Your task to perform on an android device: turn off smart reply in the gmail app Image 0: 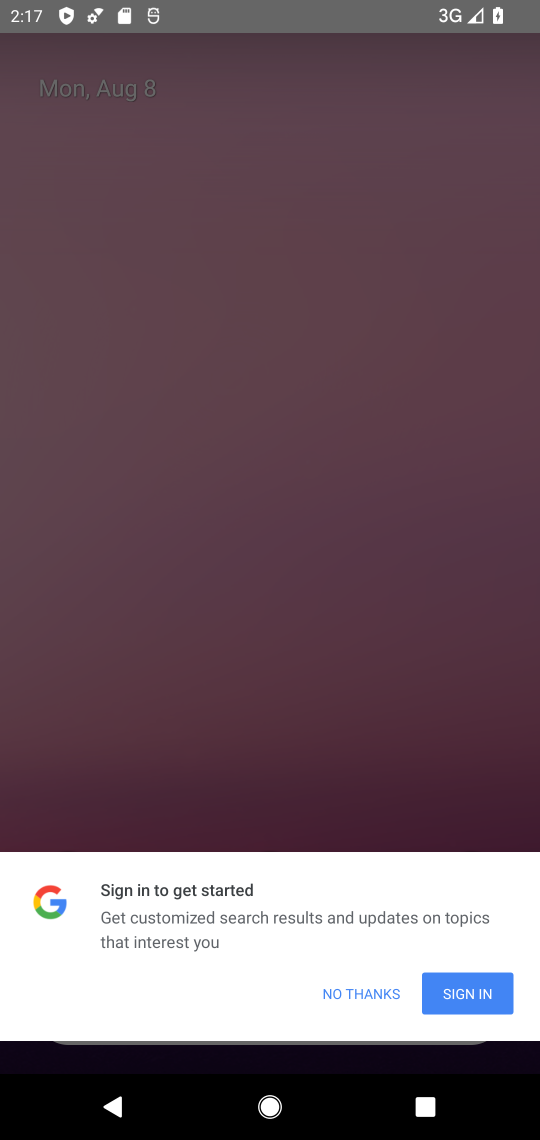
Step 0: press home button
Your task to perform on an android device: turn off smart reply in the gmail app Image 1: 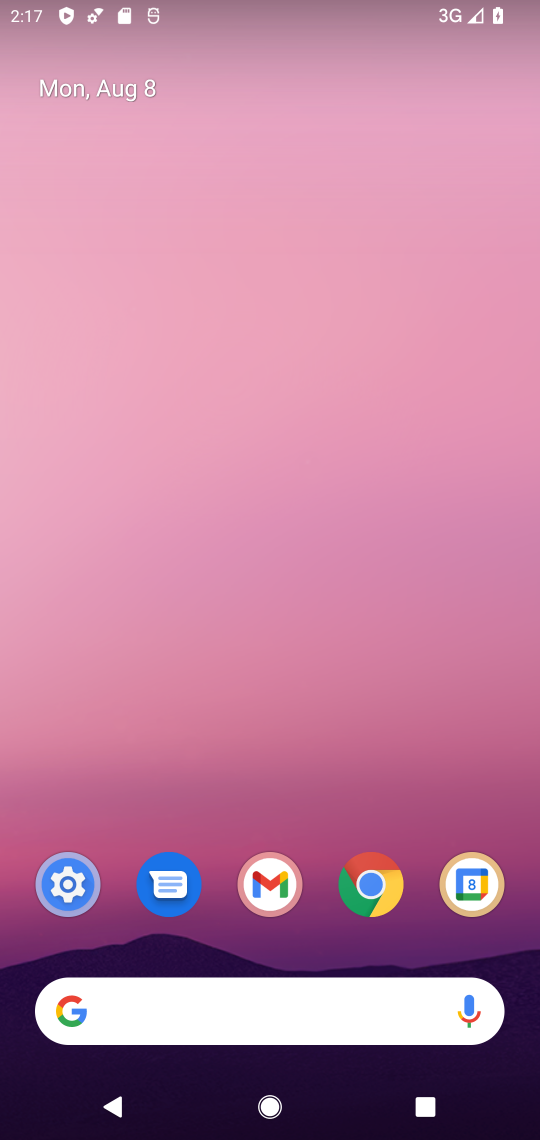
Step 1: click (266, 884)
Your task to perform on an android device: turn off smart reply in the gmail app Image 2: 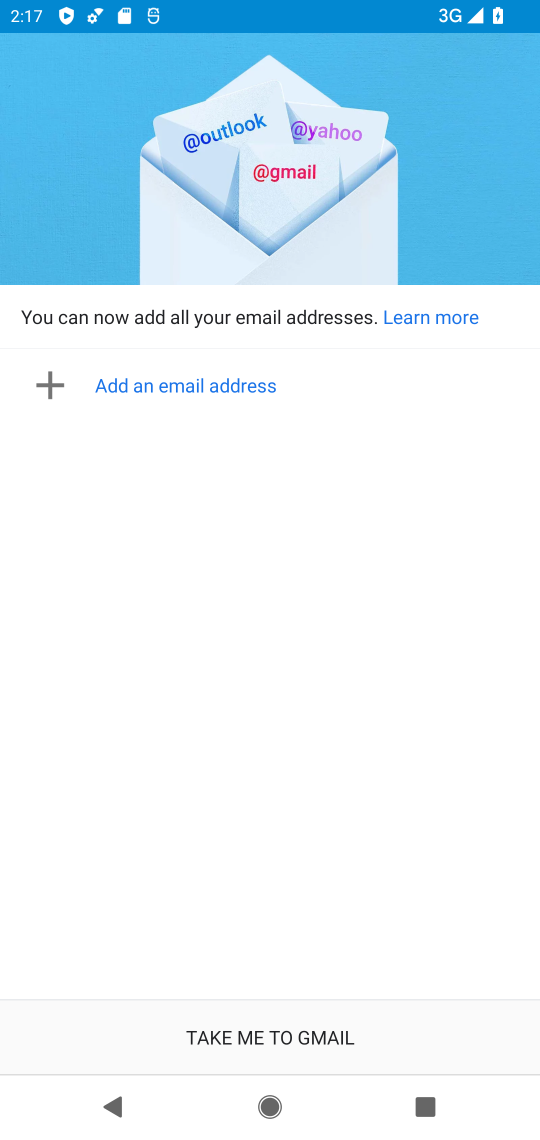
Step 2: click (286, 1032)
Your task to perform on an android device: turn off smart reply in the gmail app Image 3: 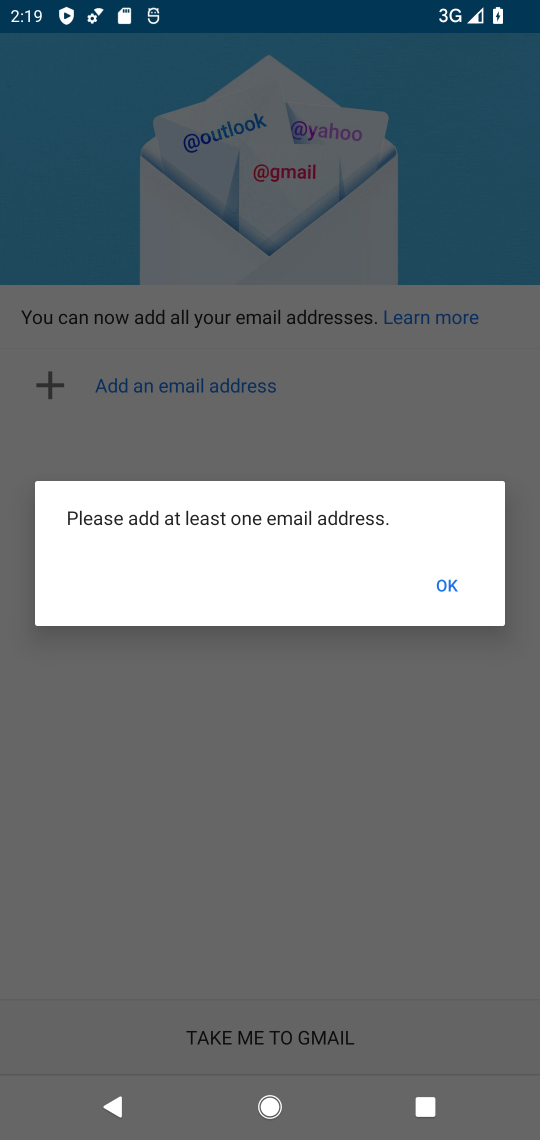
Step 3: press home button
Your task to perform on an android device: turn off smart reply in the gmail app Image 4: 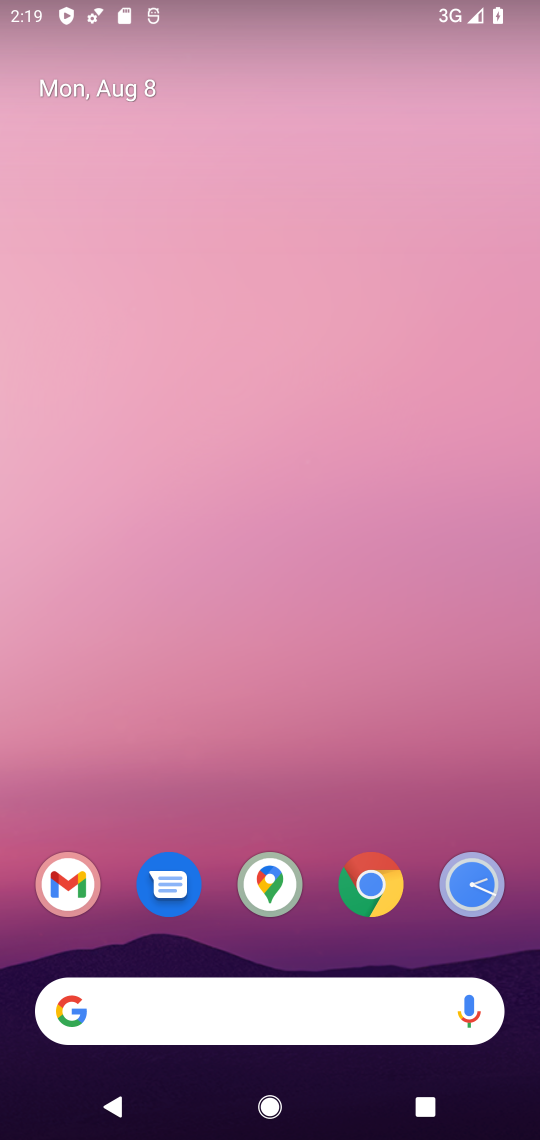
Step 4: click (78, 886)
Your task to perform on an android device: turn off smart reply in the gmail app Image 5: 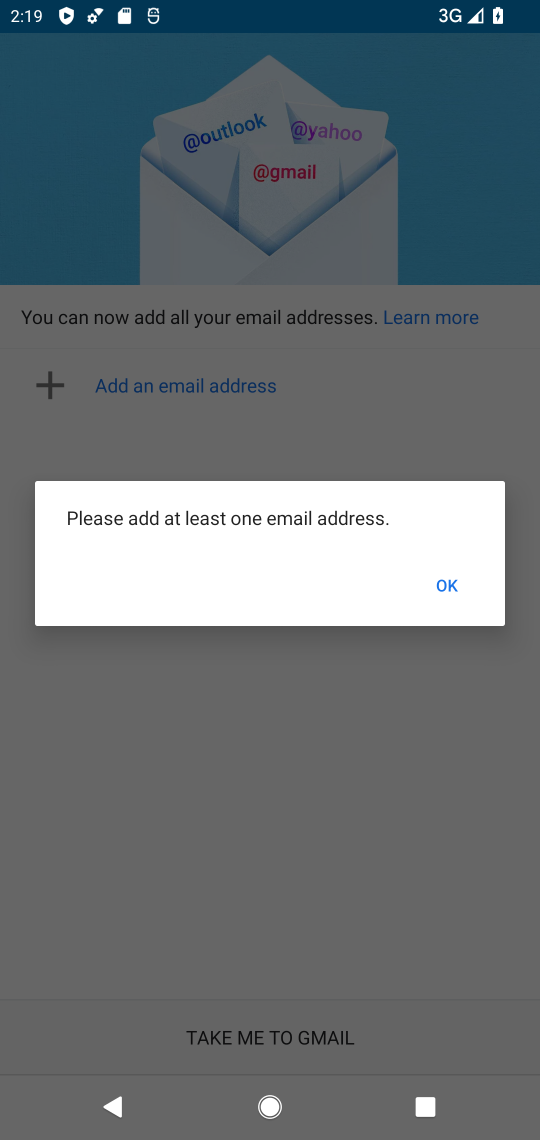
Step 5: click (437, 565)
Your task to perform on an android device: turn off smart reply in the gmail app Image 6: 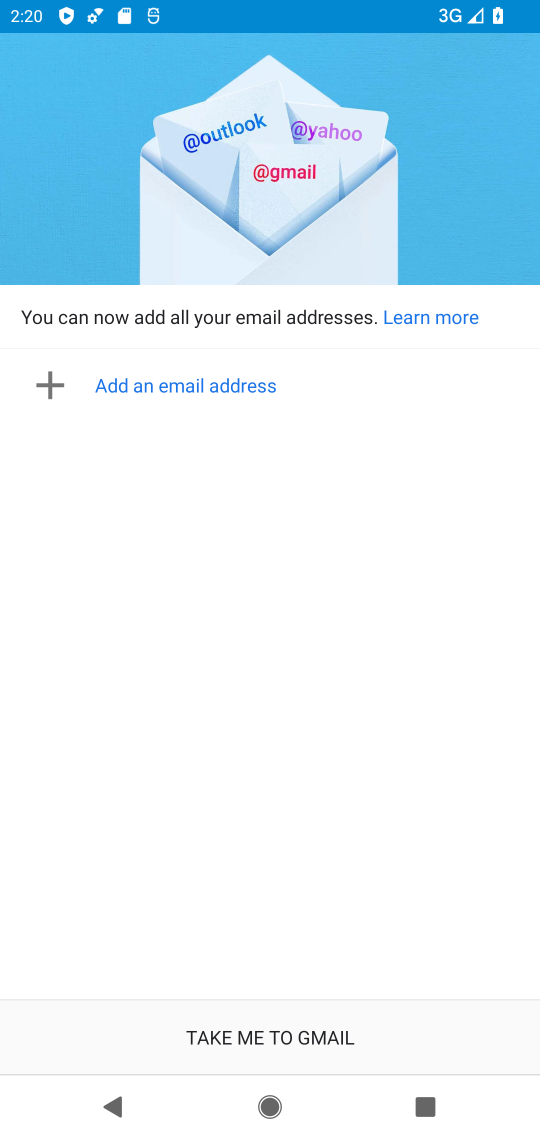
Step 6: task complete